Your task to perform on an android device: add a contact Image 0: 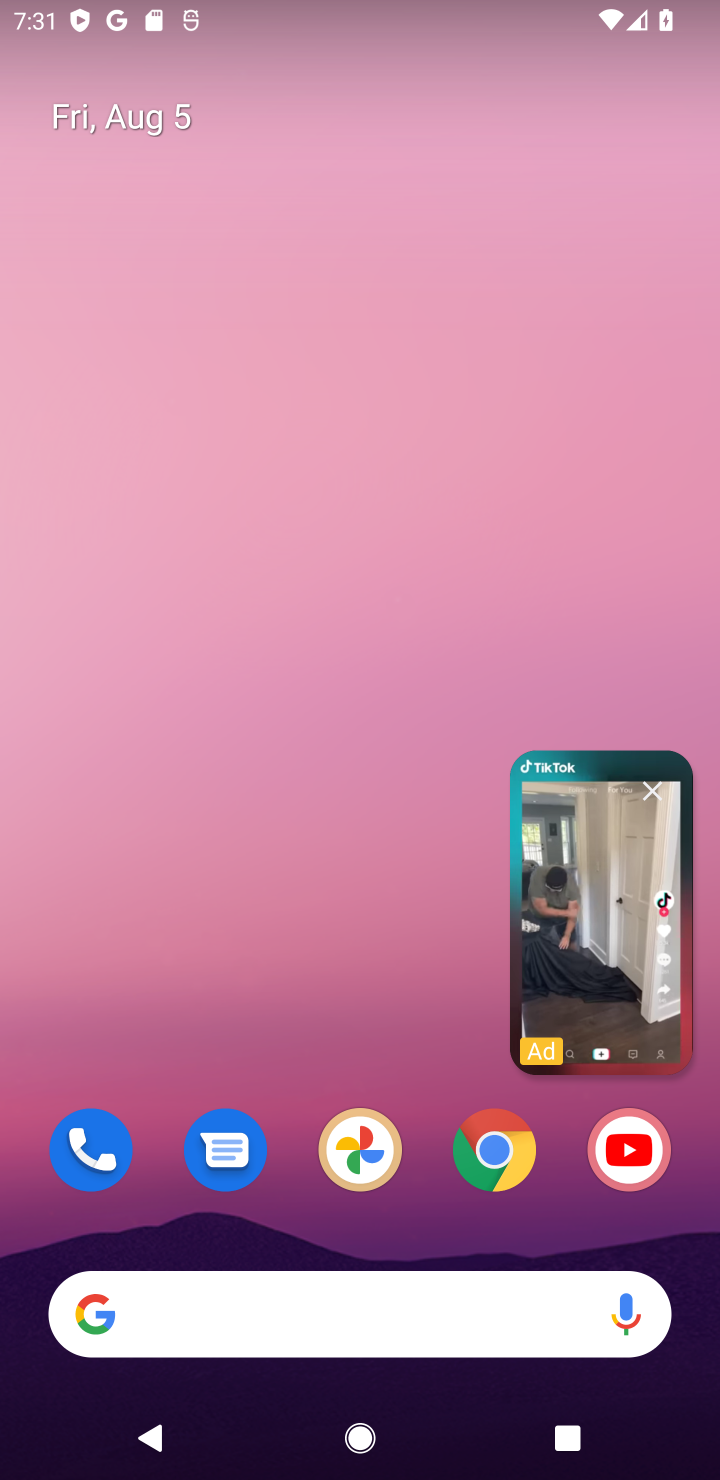
Step 0: press home button
Your task to perform on an android device: add a contact Image 1: 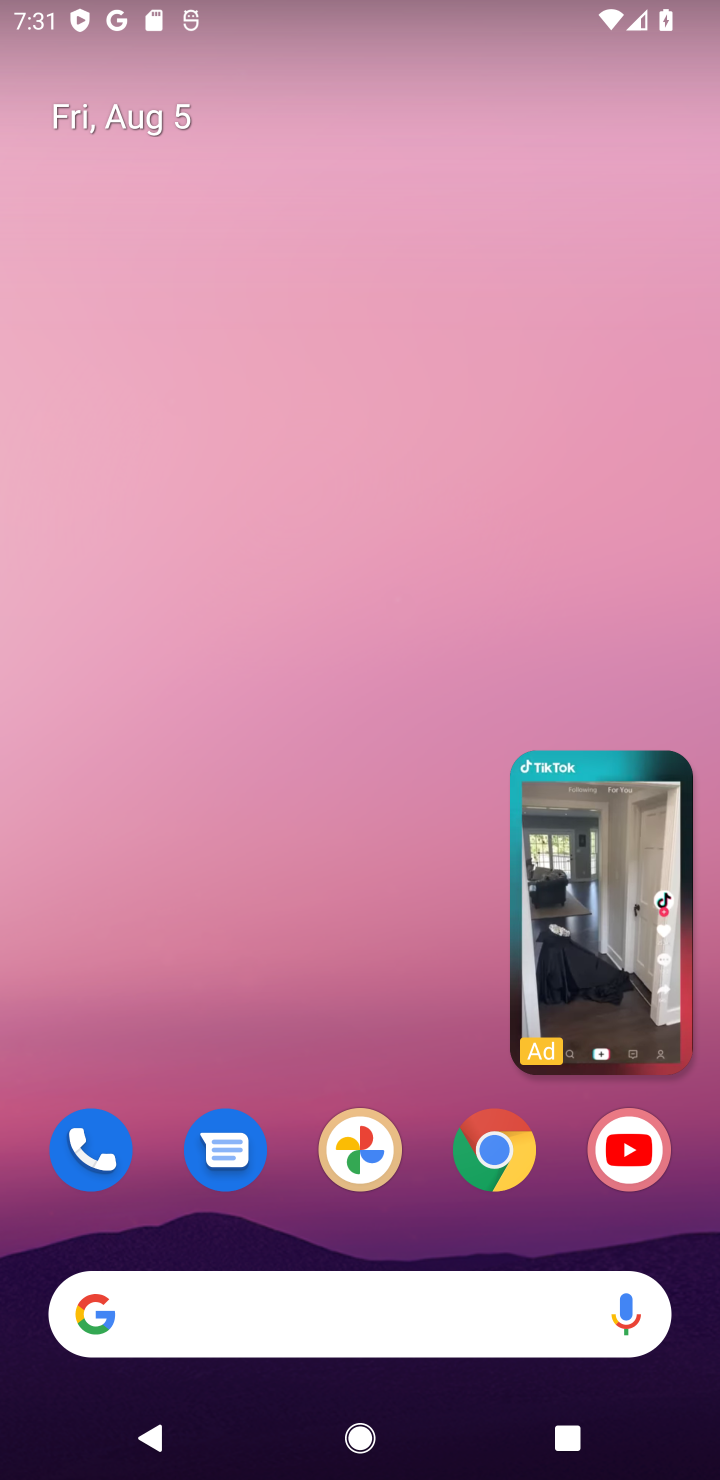
Step 1: drag from (357, 860) to (399, 388)
Your task to perform on an android device: add a contact Image 2: 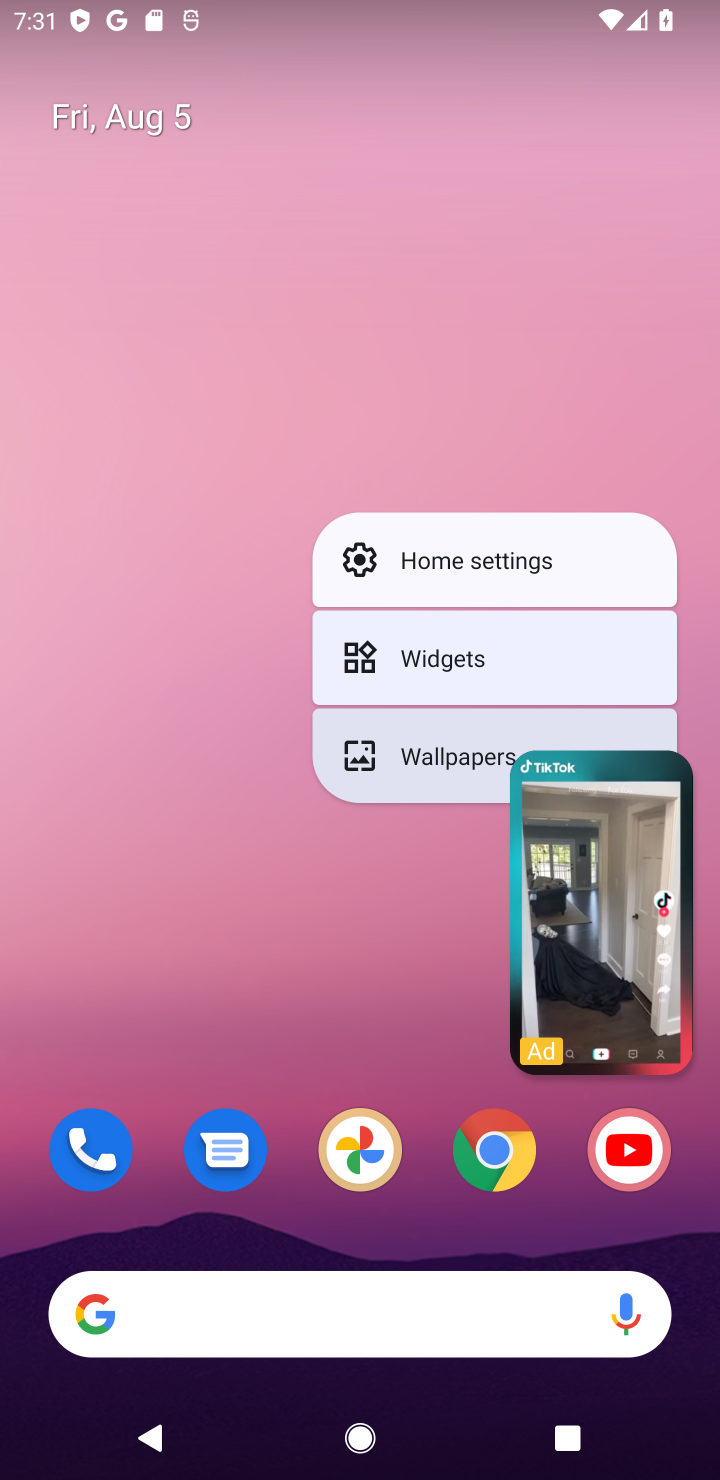
Step 2: drag from (281, 1009) to (263, 349)
Your task to perform on an android device: add a contact Image 3: 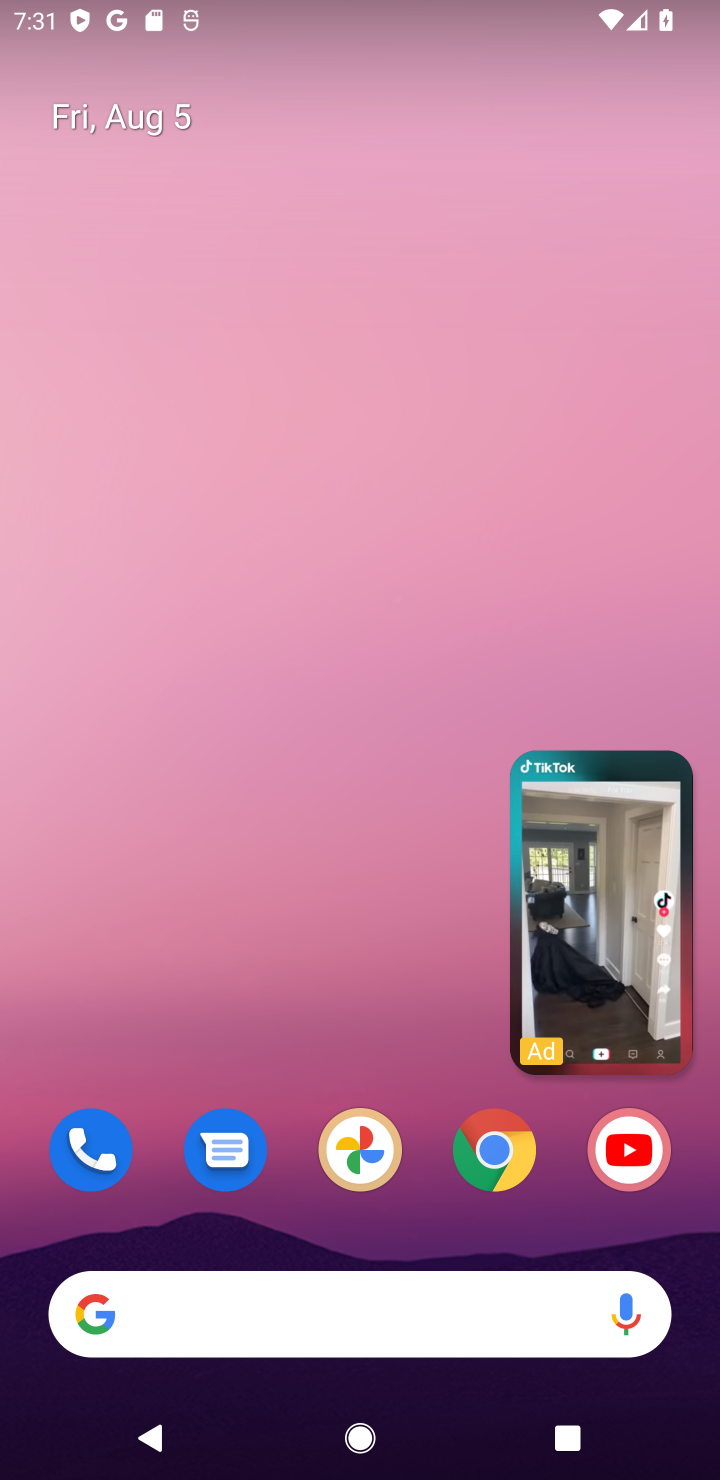
Step 3: drag from (316, 882) to (376, 218)
Your task to perform on an android device: add a contact Image 4: 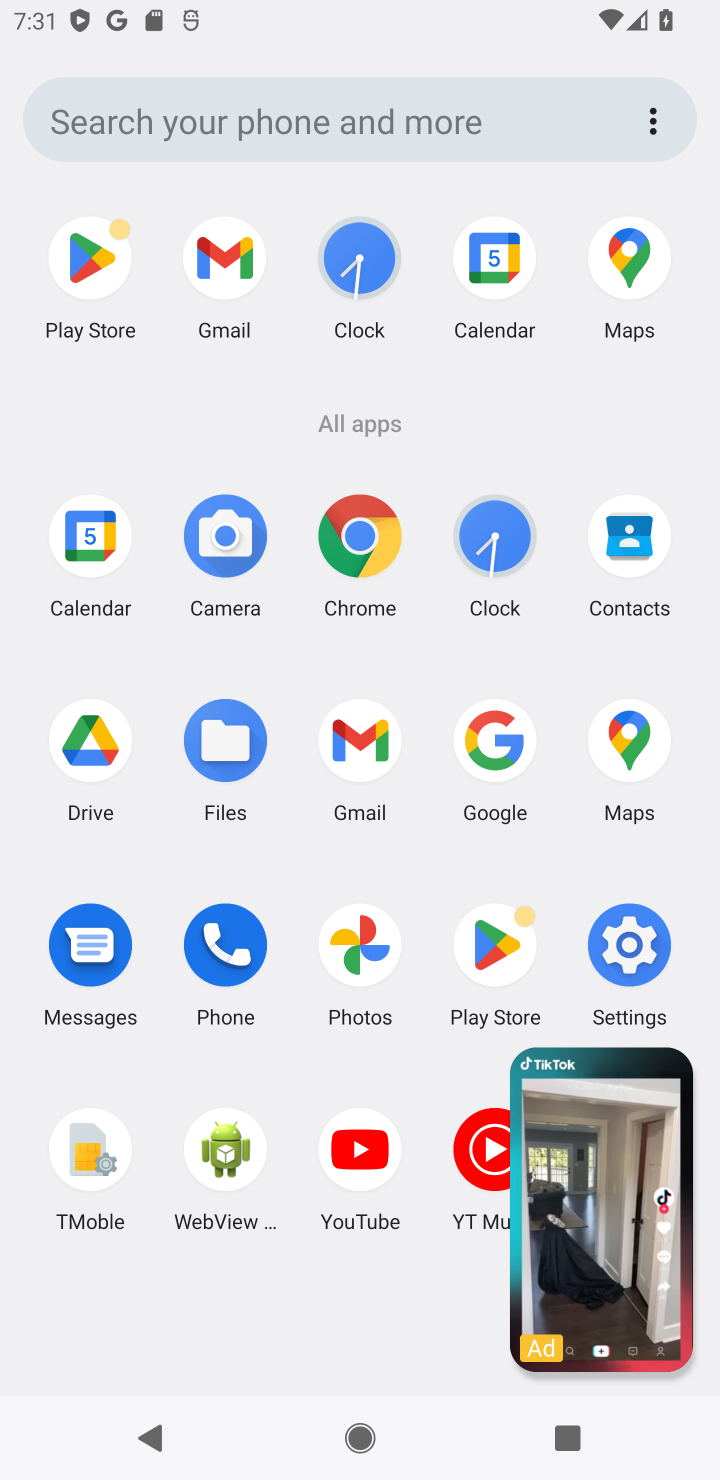
Step 4: click (649, 522)
Your task to perform on an android device: add a contact Image 5: 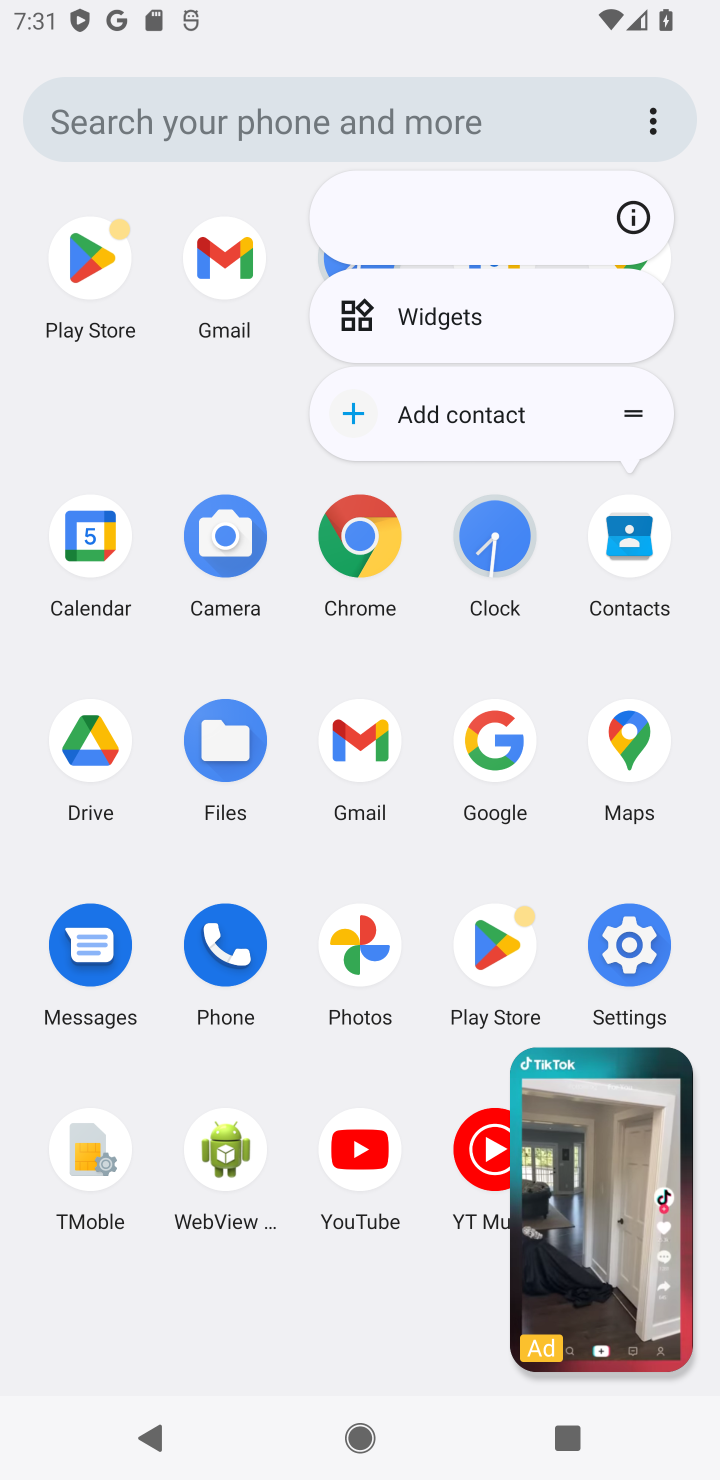
Step 5: click (630, 567)
Your task to perform on an android device: add a contact Image 6: 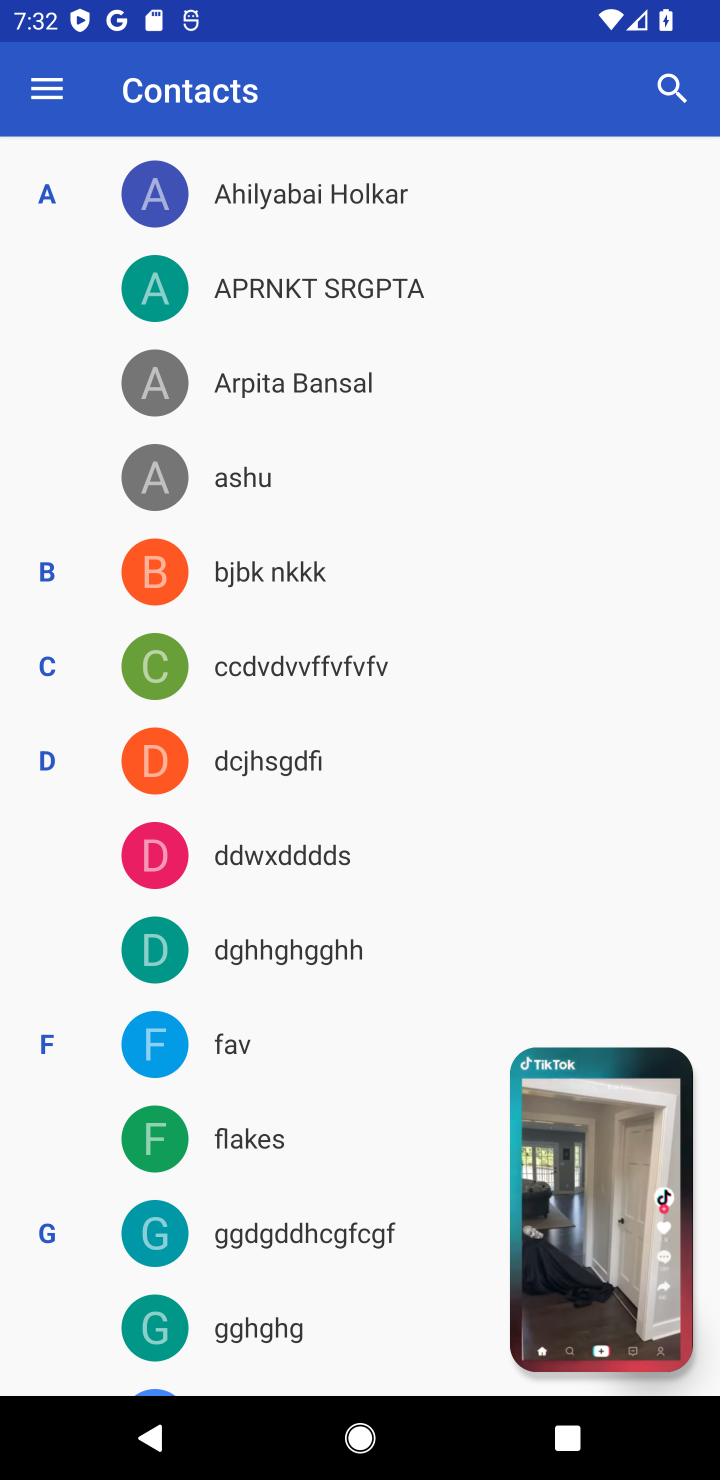
Step 6: drag from (581, 1168) to (223, 1476)
Your task to perform on an android device: add a contact Image 7: 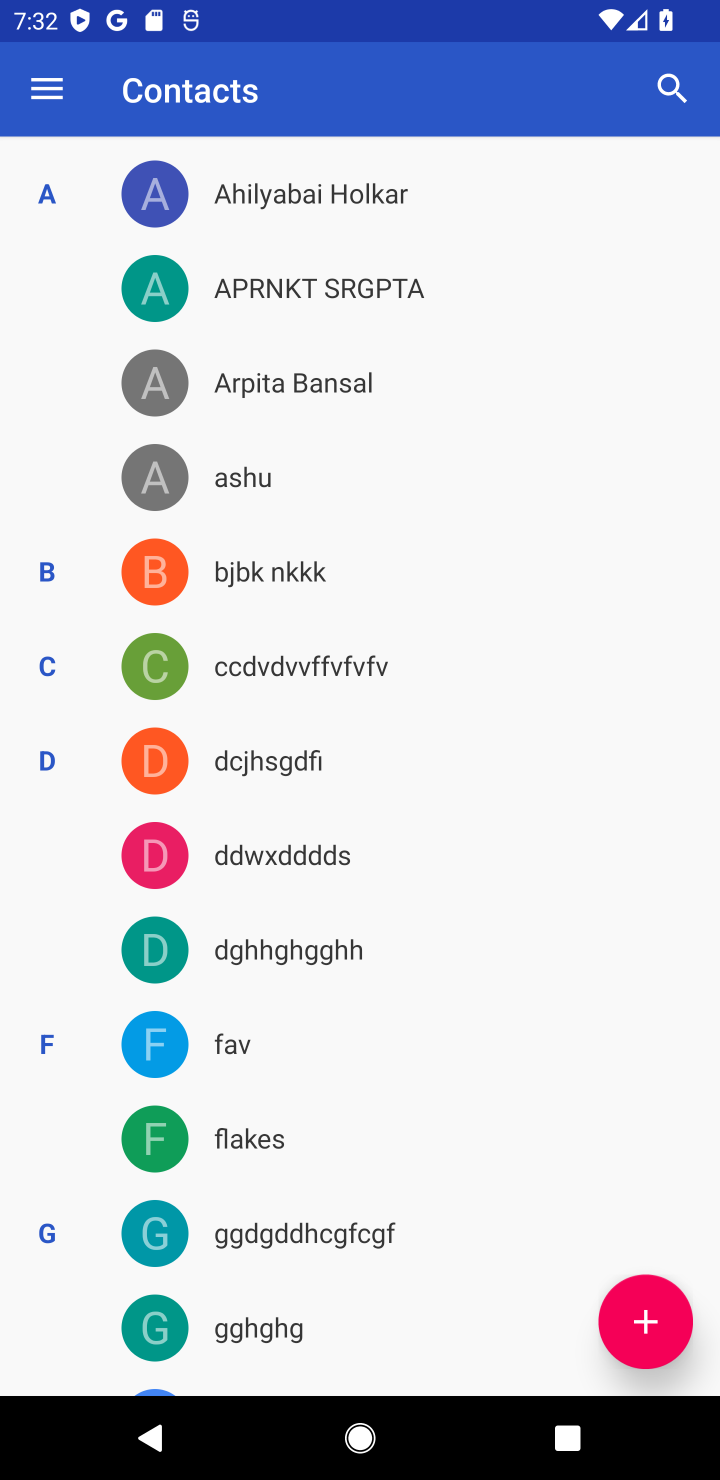
Step 7: click (626, 1327)
Your task to perform on an android device: add a contact Image 8: 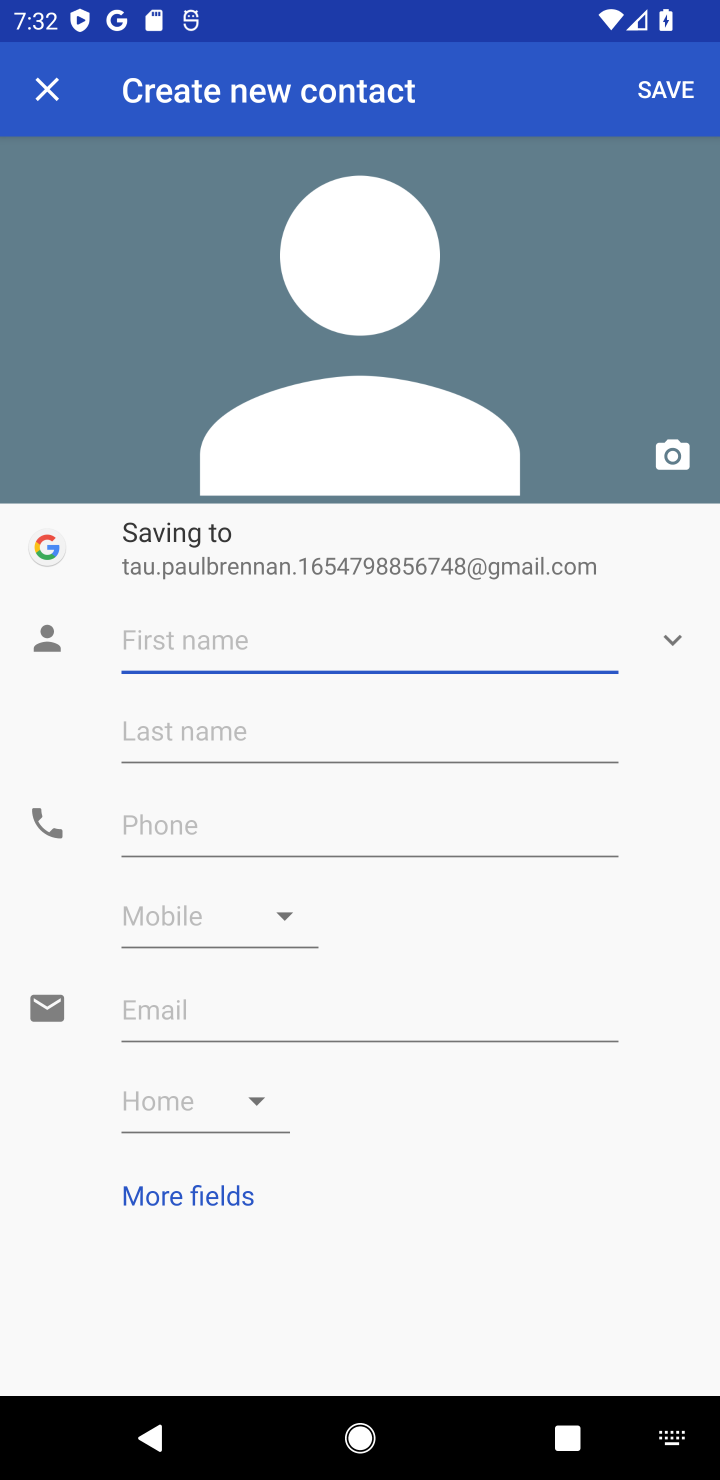
Step 8: click (359, 635)
Your task to perform on an android device: add a contact Image 9: 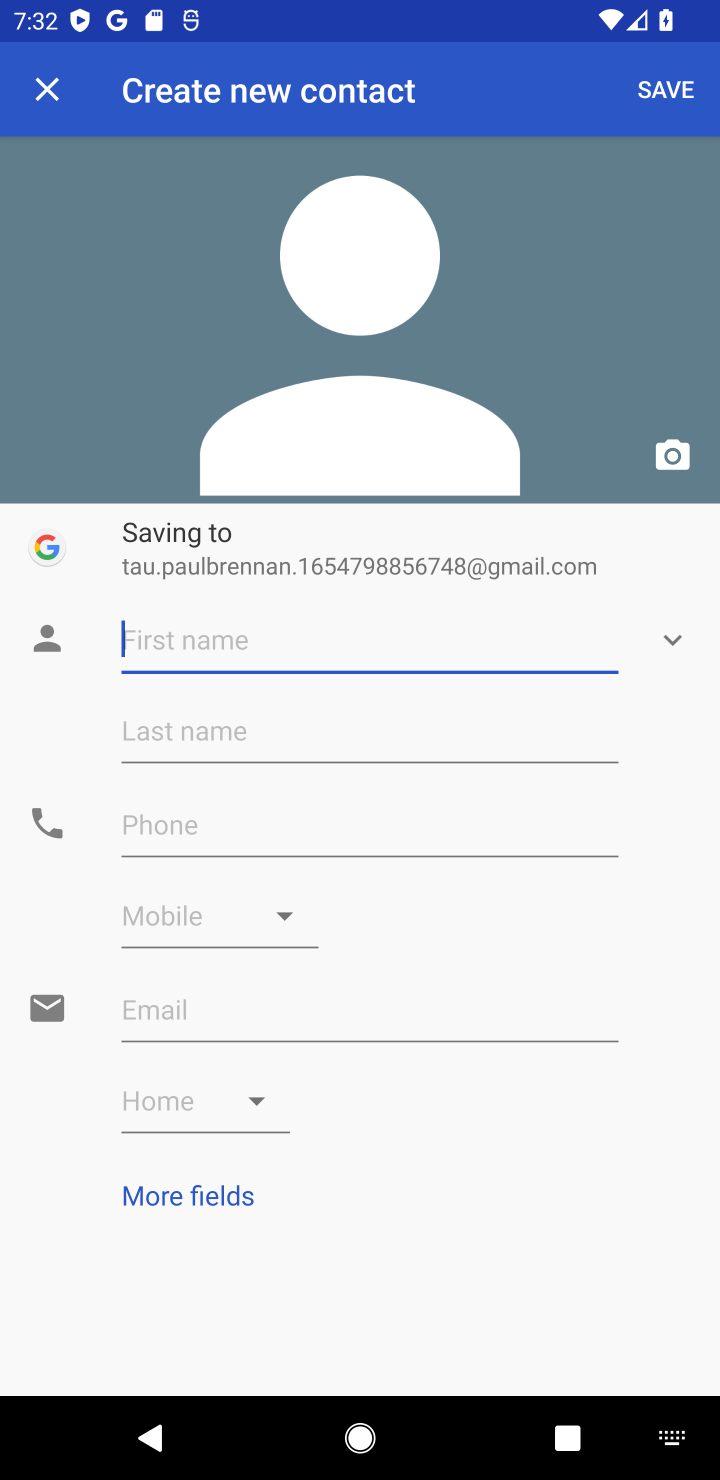
Step 9: type "fav"
Your task to perform on an android device: add a contact Image 10: 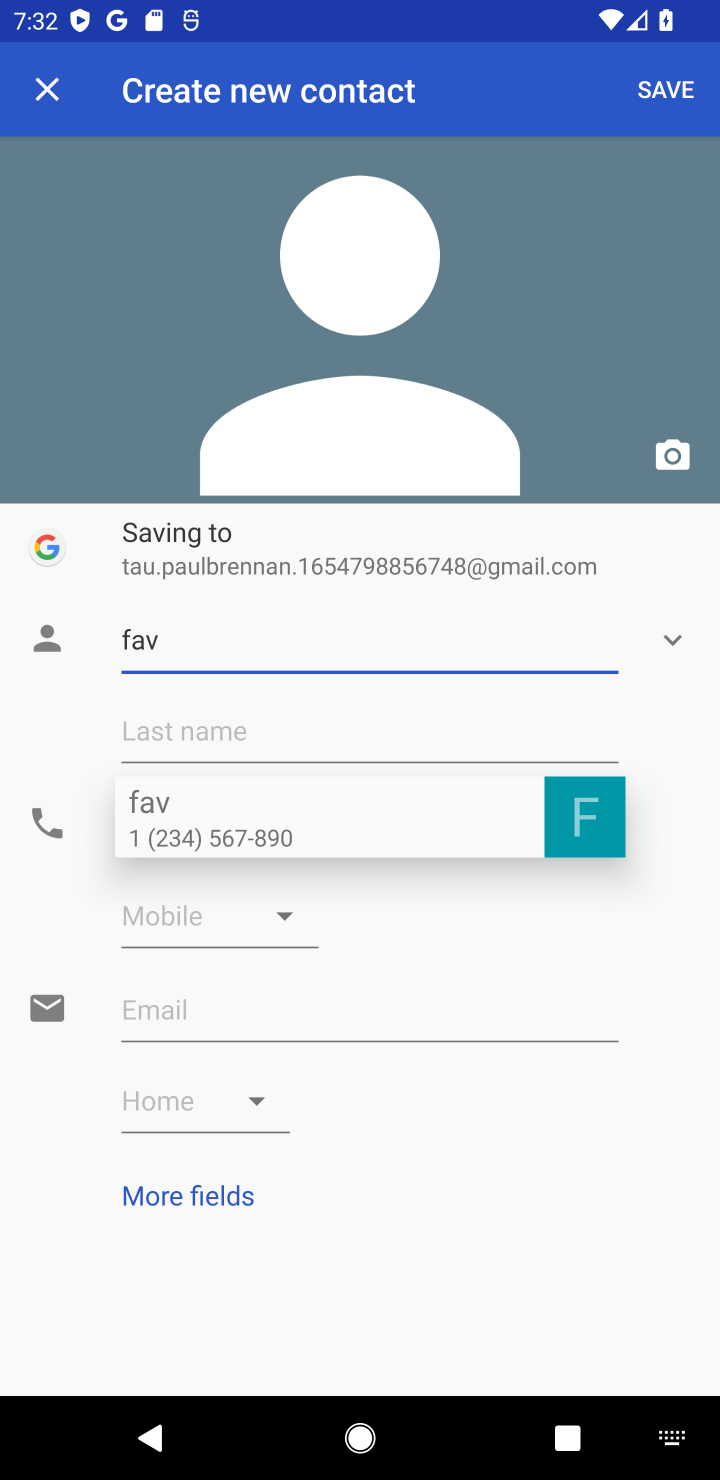
Step 10: click (666, 748)
Your task to perform on an android device: add a contact Image 11: 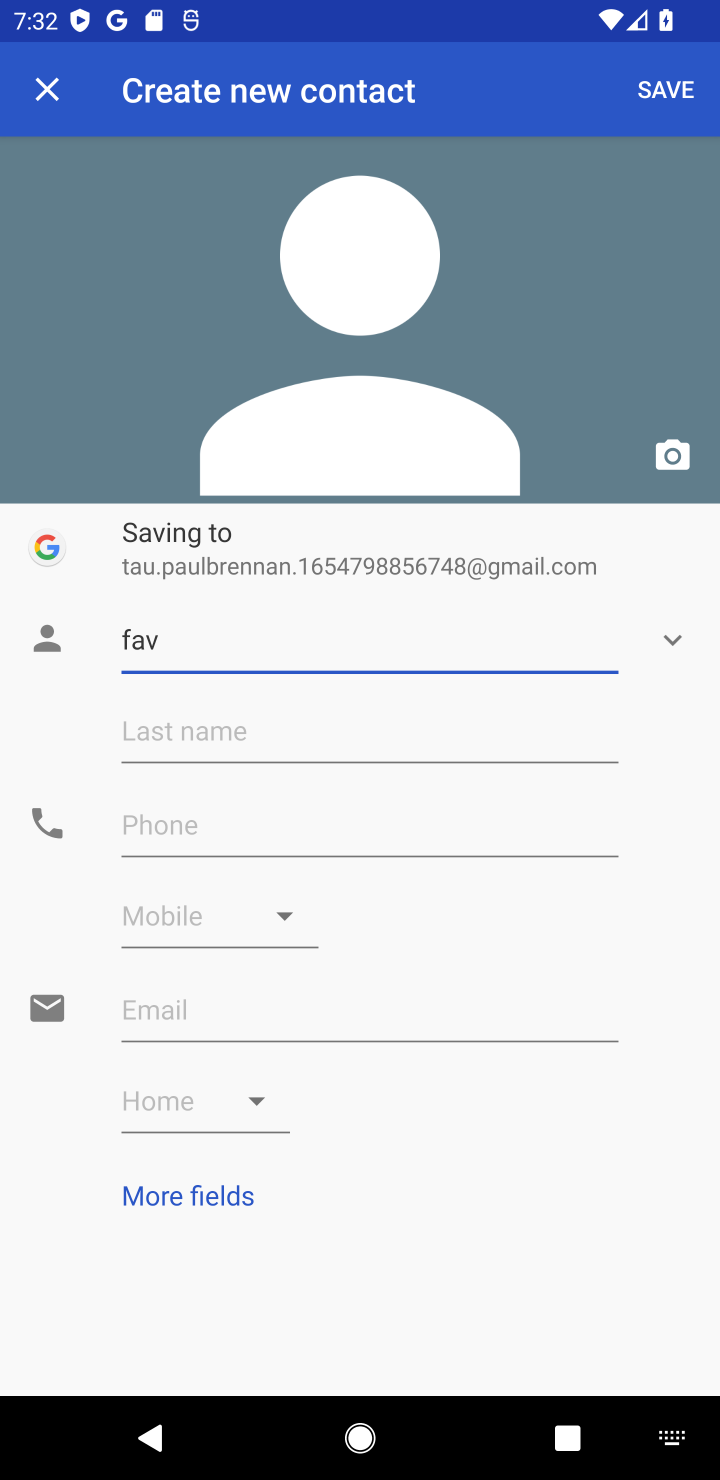
Step 11: click (299, 834)
Your task to perform on an android device: add a contact Image 12: 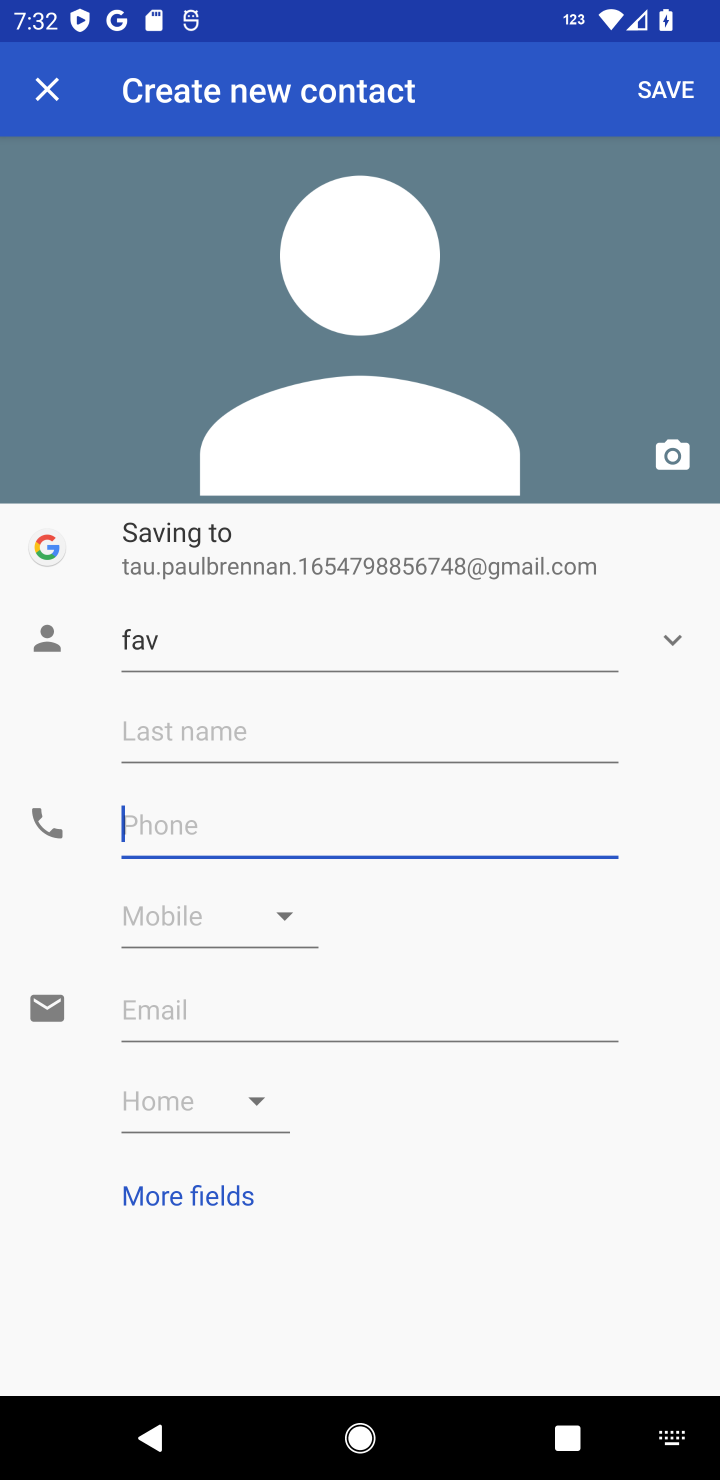
Step 12: type "123456789"
Your task to perform on an android device: add a contact Image 13: 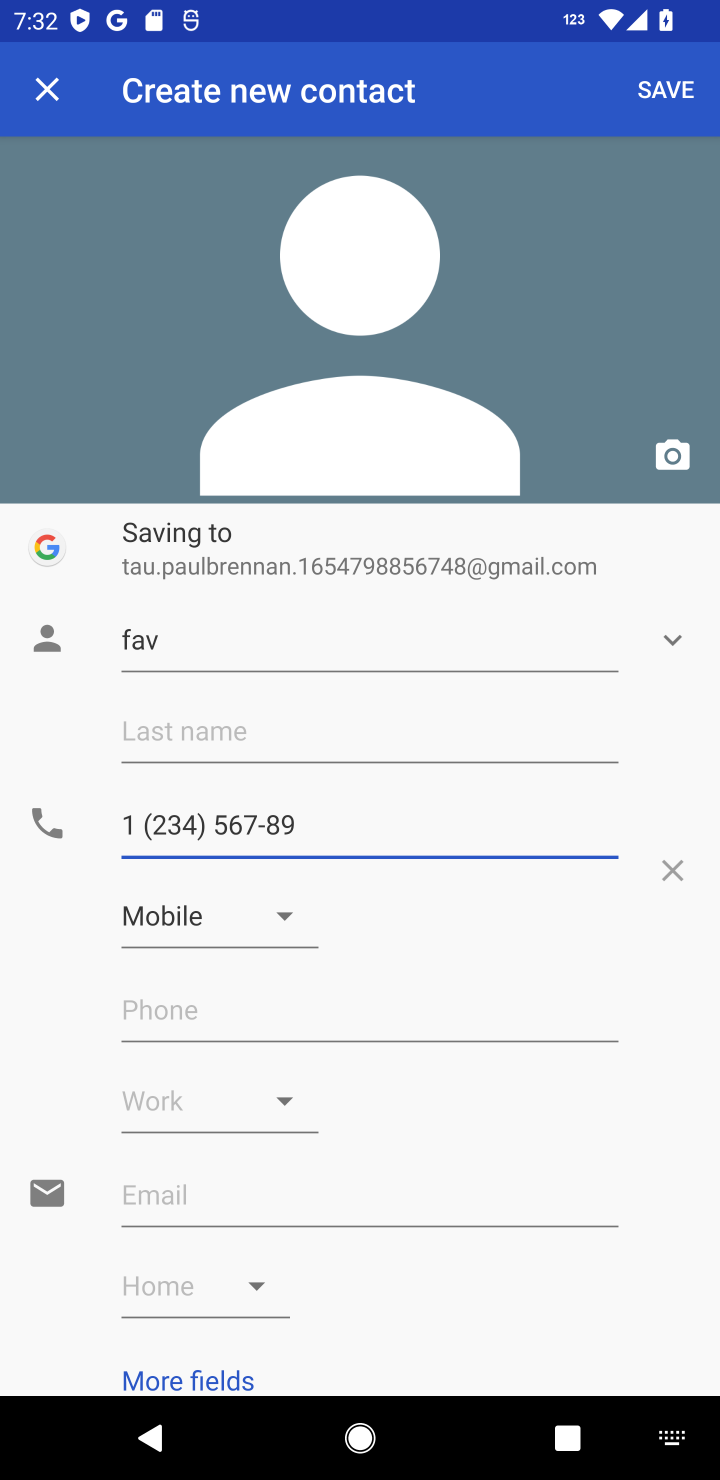
Step 13: click (670, 87)
Your task to perform on an android device: add a contact Image 14: 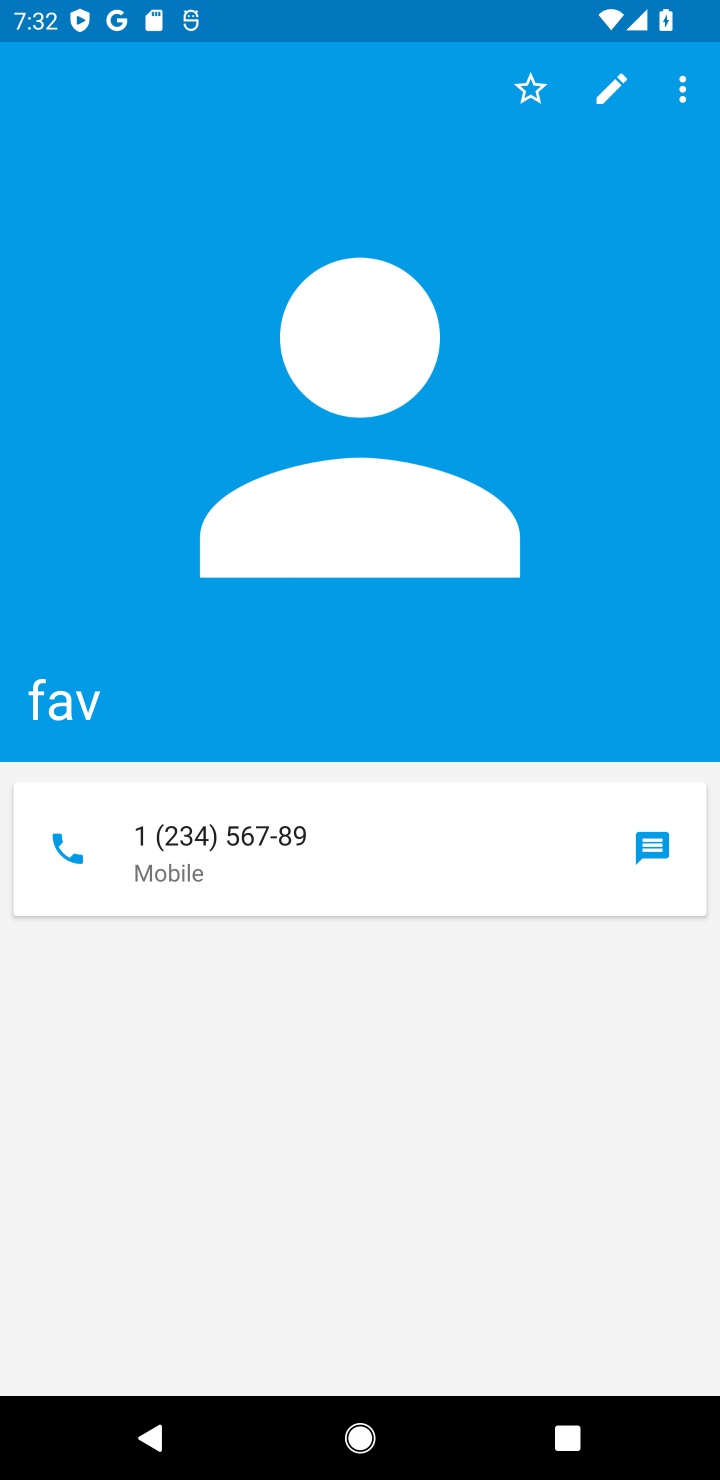
Step 14: task complete